Your task to perform on an android device: turn on sleep mode Image 0: 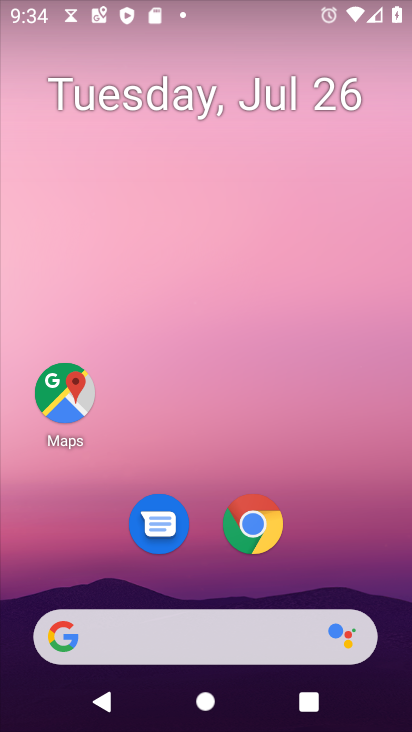
Step 0: press home button
Your task to perform on an android device: turn on sleep mode Image 1: 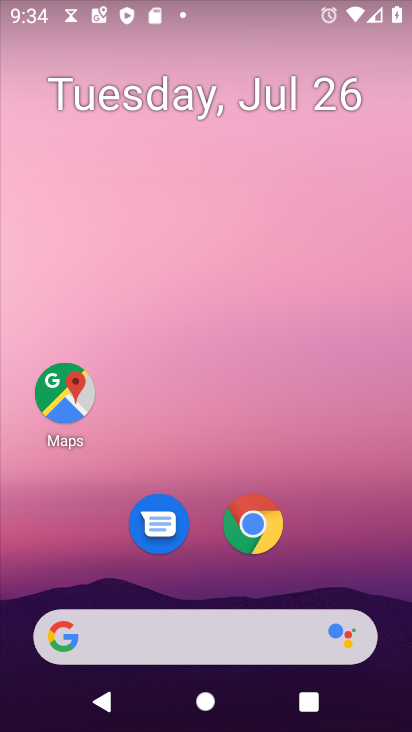
Step 1: drag from (192, 631) to (351, 90)
Your task to perform on an android device: turn on sleep mode Image 2: 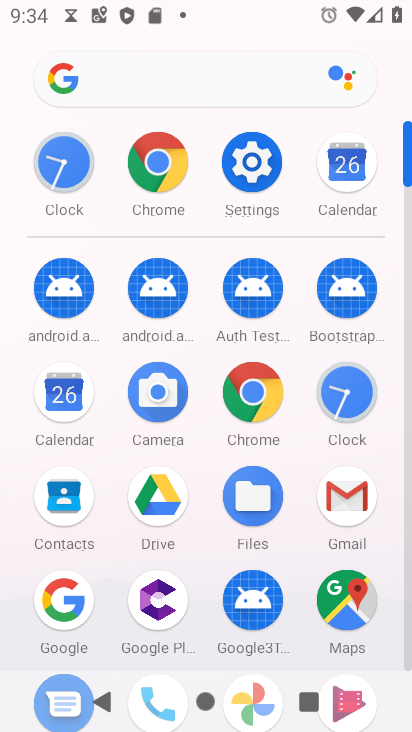
Step 2: click (258, 171)
Your task to perform on an android device: turn on sleep mode Image 3: 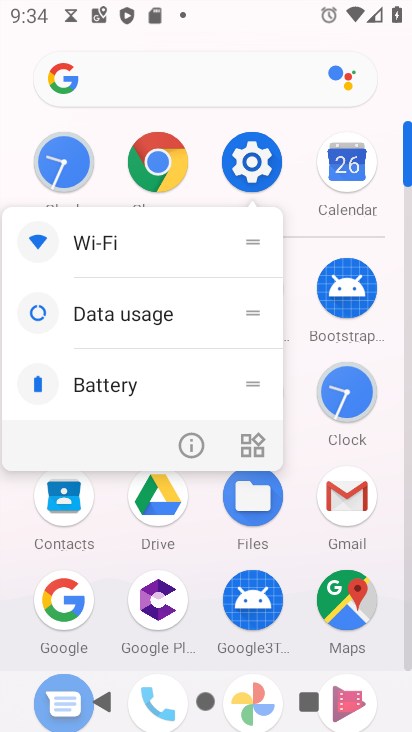
Step 3: click (258, 160)
Your task to perform on an android device: turn on sleep mode Image 4: 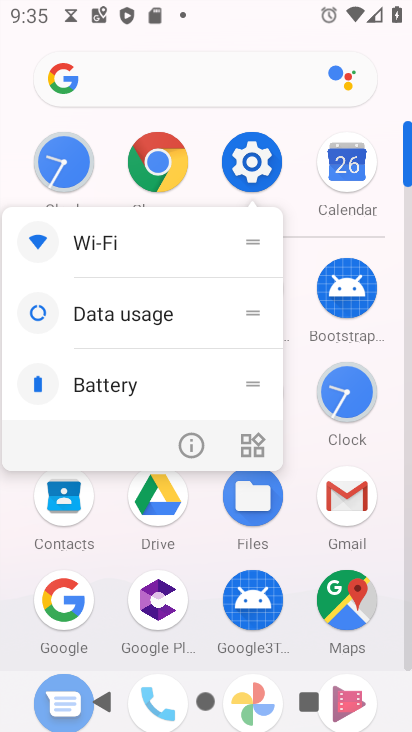
Step 4: click (253, 163)
Your task to perform on an android device: turn on sleep mode Image 5: 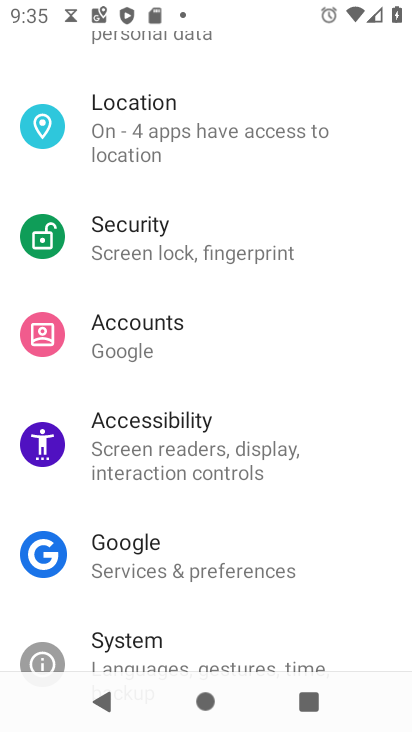
Step 5: drag from (308, 86) to (191, 560)
Your task to perform on an android device: turn on sleep mode Image 6: 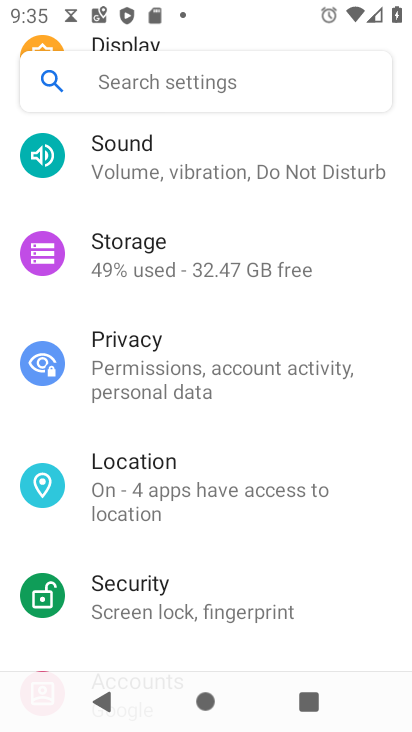
Step 6: drag from (294, 203) to (204, 573)
Your task to perform on an android device: turn on sleep mode Image 7: 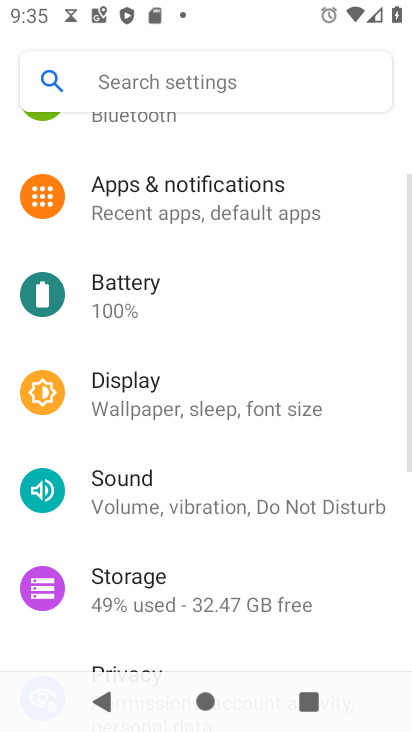
Step 7: click (225, 395)
Your task to perform on an android device: turn on sleep mode Image 8: 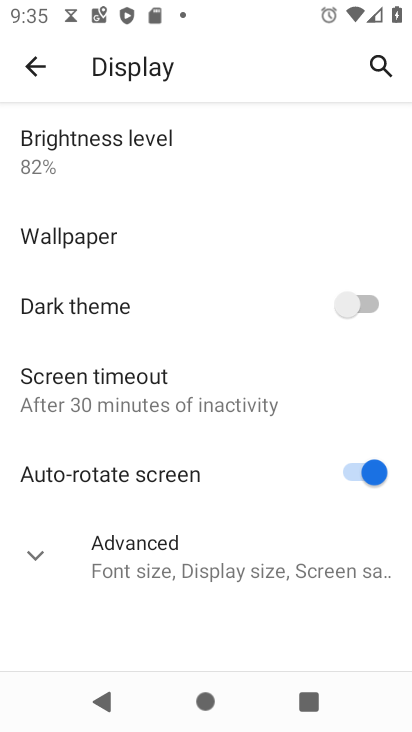
Step 8: task complete